Your task to perform on an android device: turn on wifi Image 0: 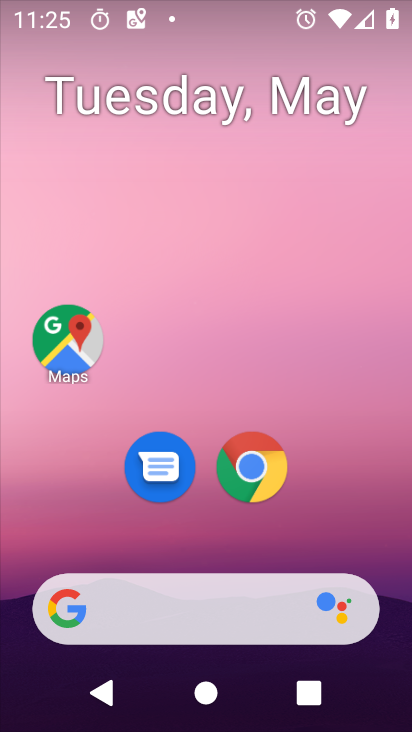
Step 0: drag from (332, 549) to (258, 9)
Your task to perform on an android device: turn on wifi Image 1: 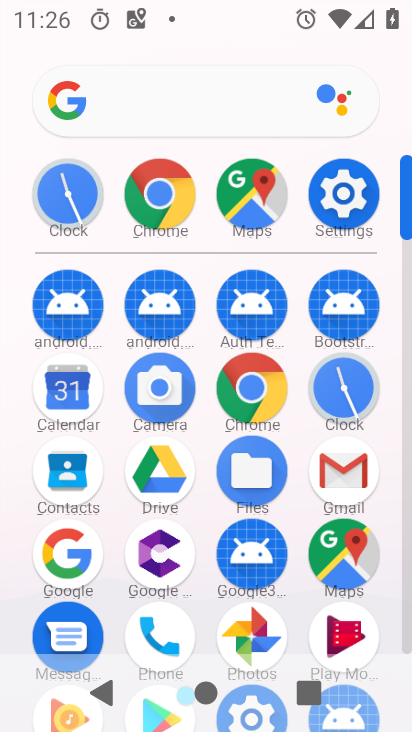
Step 1: click (342, 190)
Your task to perform on an android device: turn on wifi Image 2: 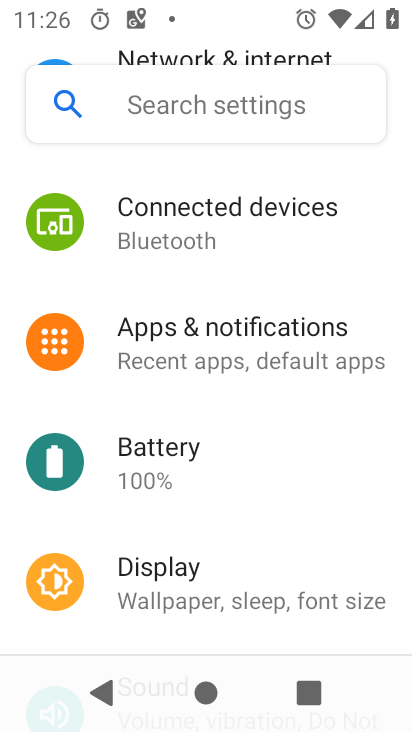
Step 2: drag from (272, 246) to (270, 614)
Your task to perform on an android device: turn on wifi Image 3: 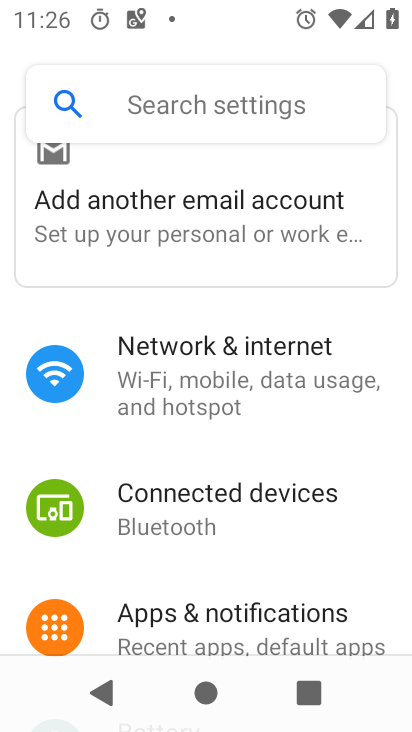
Step 3: click (212, 389)
Your task to perform on an android device: turn on wifi Image 4: 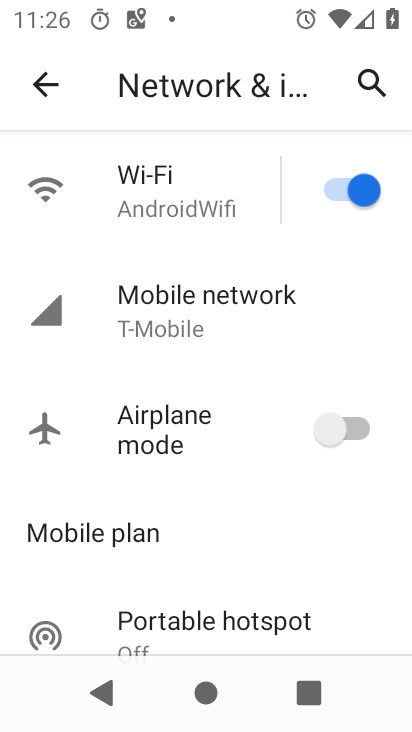
Step 4: task complete